Your task to perform on an android device: turn off location Image 0: 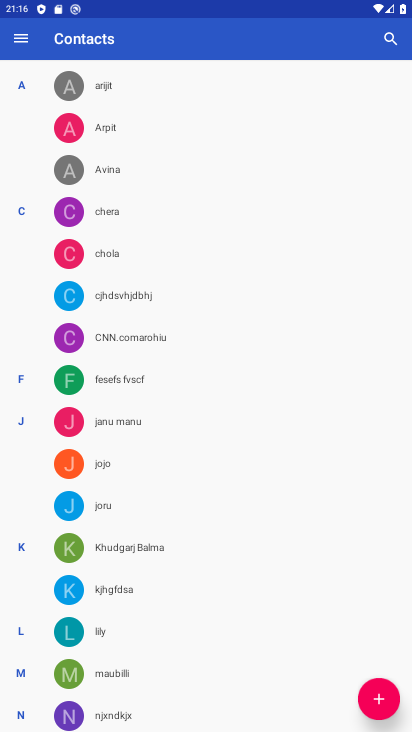
Step 0: press home button
Your task to perform on an android device: turn off location Image 1: 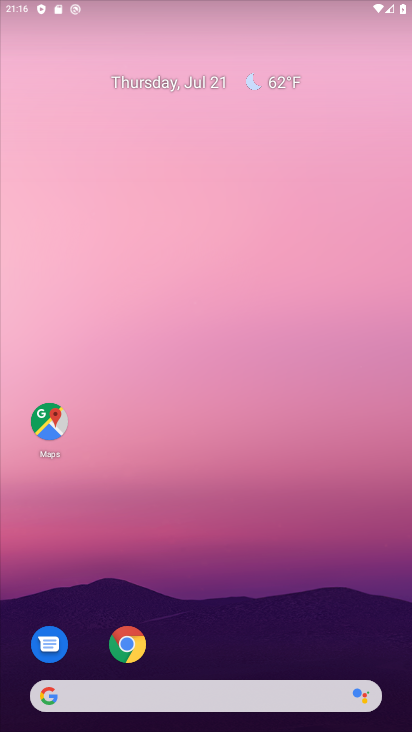
Step 1: drag from (234, 394) to (213, 18)
Your task to perform on an android device: turn off location Image 2: 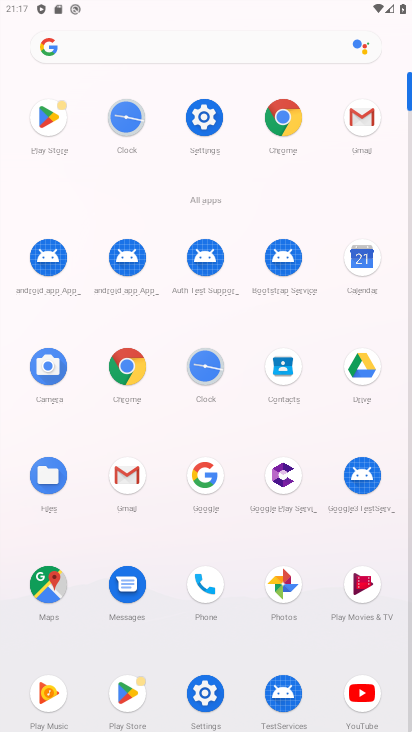
Step 2: click (205, 112)
Your task to perform on an android device: turn off location Image 3: 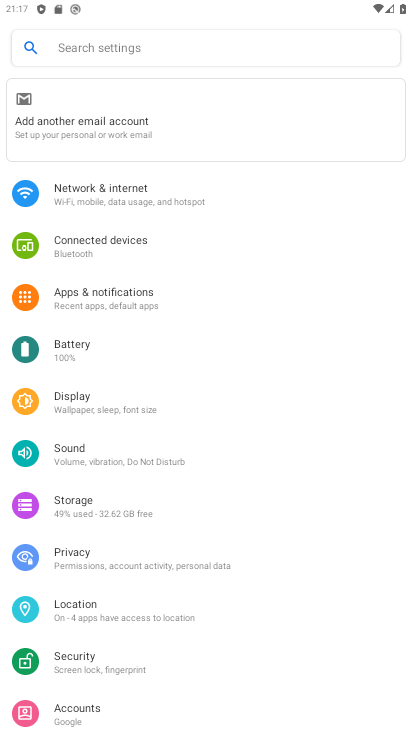
Step 3: click (130, 605)
Your task to perform on an android device: turn off location Image 4: 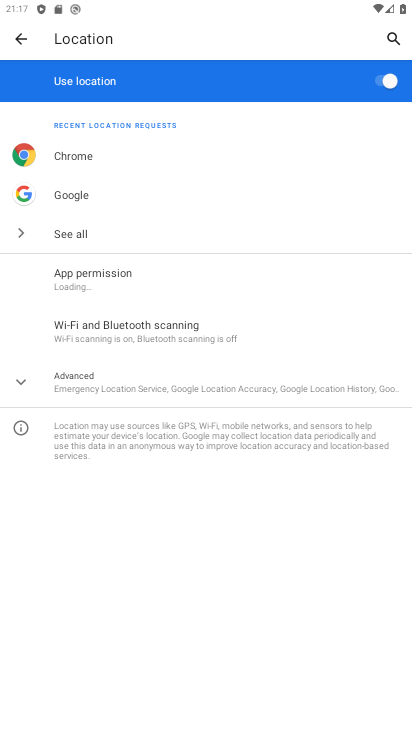
Step 4: click (387, 80)
Your task to perform on an android device: turn off location Image 5: 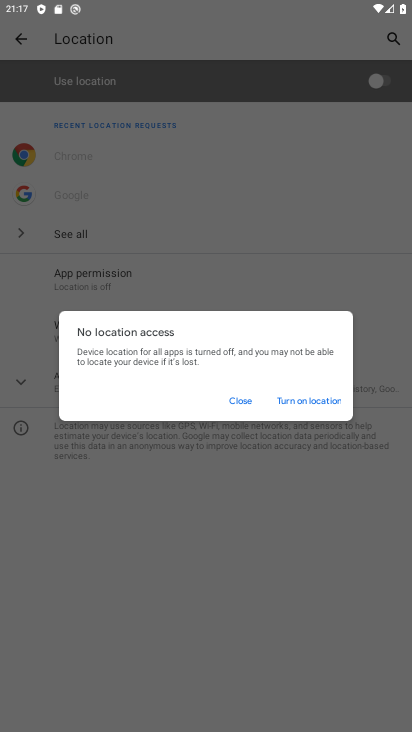
Step 5: task complete